Your task to perform on an android device: toggle pop-ups in chrome Image 0: 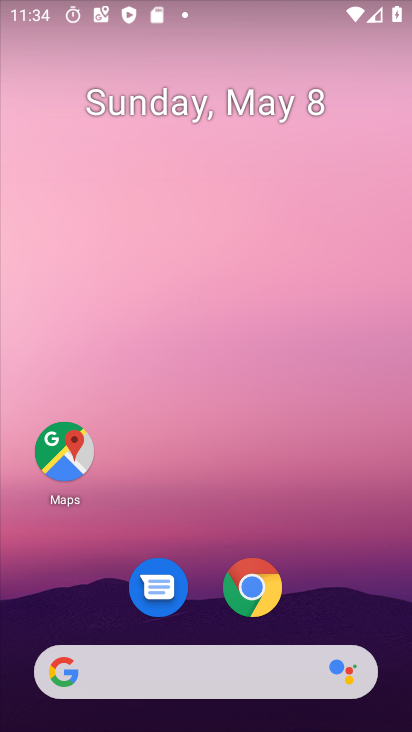
Step 0: drag from (364, 616) to (172, 23)
Your task to perform on an android device: toggle pop-ups in chrome Image 1: 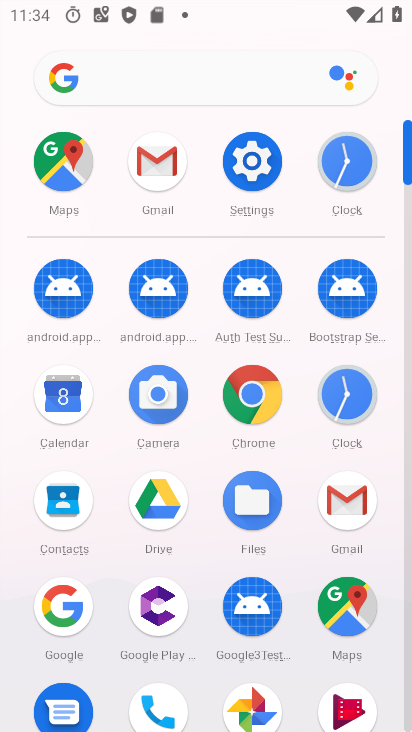
Step 1: click (255, 404)
Your task to perform on an android device: toggle pop-ups in chrome Image 2: 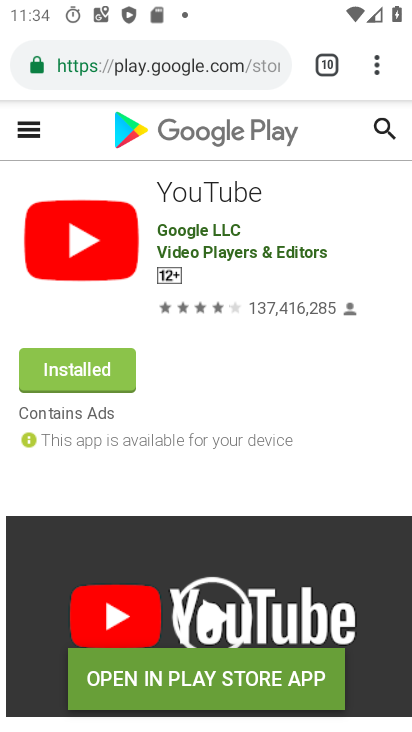
Step 2: drag from (368, 57) to (135, 631)
Your task to perform on an android device: toggle pop-ups in chrome Image 3: 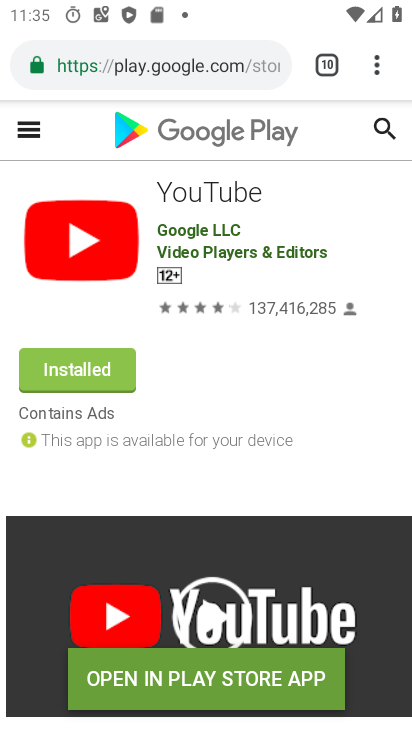
Step 3: click (135, 631)
Your task to perform on an android device: toggle pop-ups in chrome Image 4: 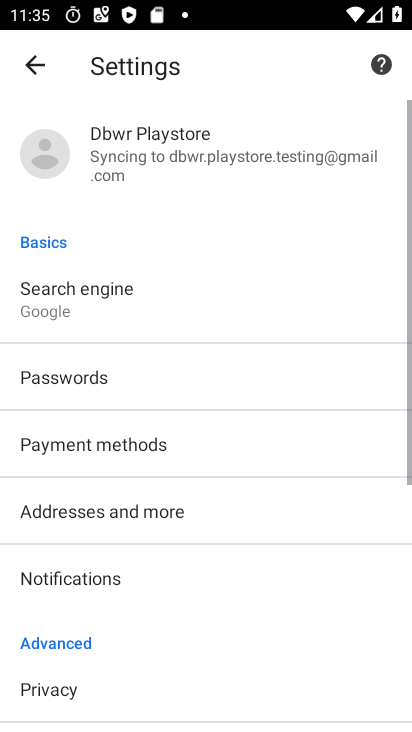
Step 4: click (135, 631)
Your task to perform on an android device: toggle pop-ups in chrome Image 5: 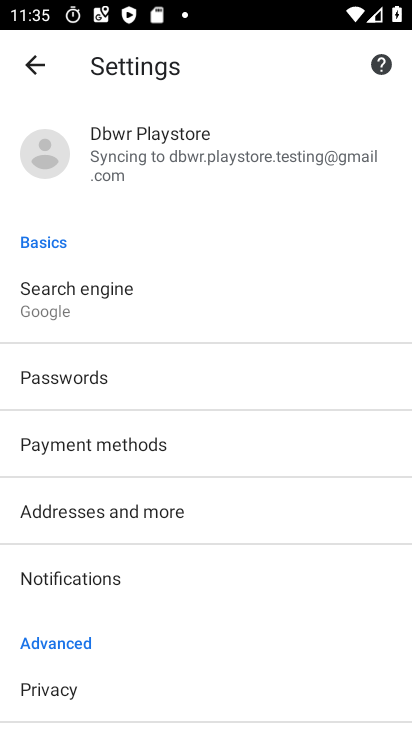
Step 5: drag from (137, 550) to (167, 108)
Your task to perform on an android device: toggle pop-ups in chrome Image 6: 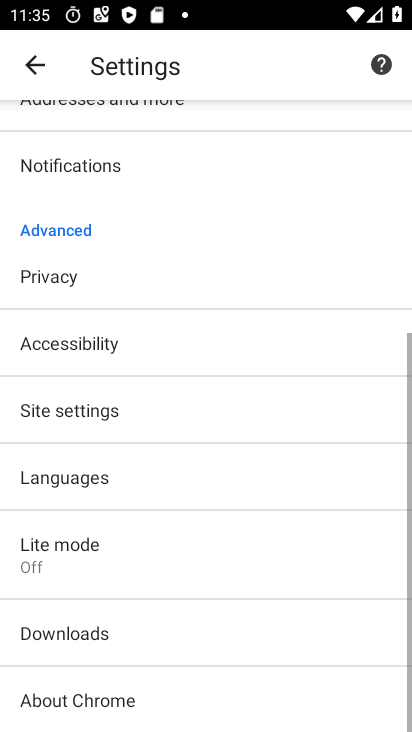
Step 6: drag from (120, 597) to (85, 210)
Your task to perform on an android device: toggle pop-ups in chrome Image 7: 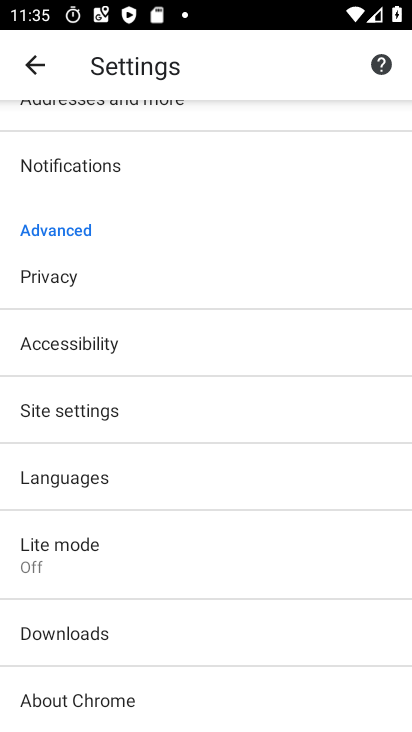
Step 7: click (55, 412)
Your task to perform on an android device: toggle pop-ups in chrome Image 8: 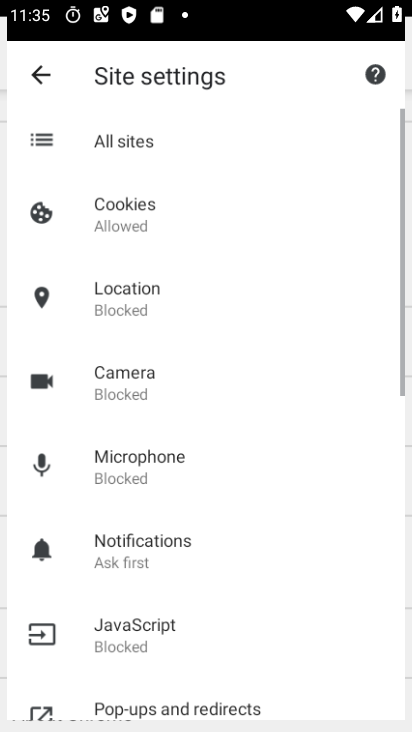
Step 8: click (56, 414)
Your task to perform on an android device: toggle pop-ups in chrome Image 9: 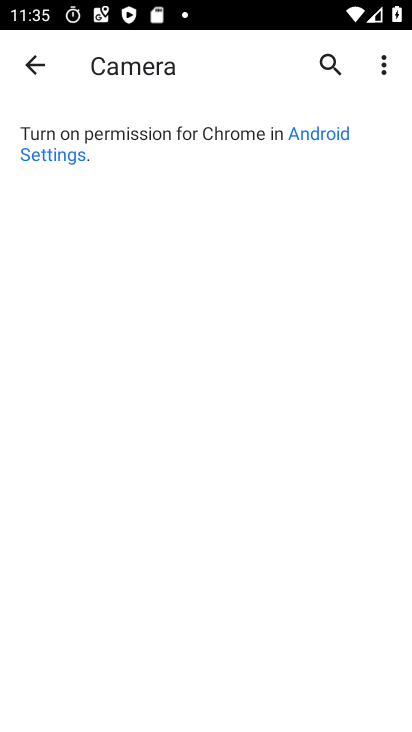
Step 9: click (49, 71)
Your task to perform on an android device: toggle pop-ups in chrome Image 10: 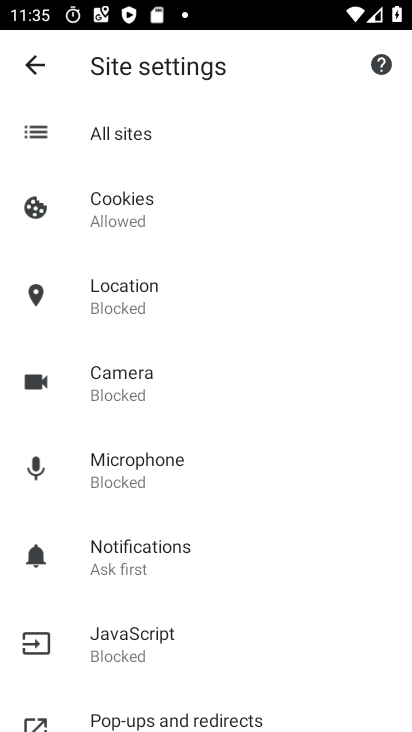
Step 10: drag from (196, 588) to (157, 195)
Your task to perform on an android device: toggle pop-ups in chrome Image 11: 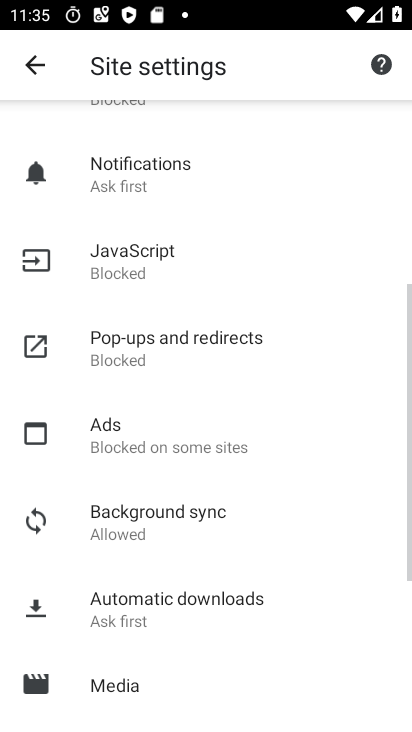
Step 11: drag from (173, 608) to (194, 124)
Your task to perform on an android device: toggle pop-ups in chrome Image 12: 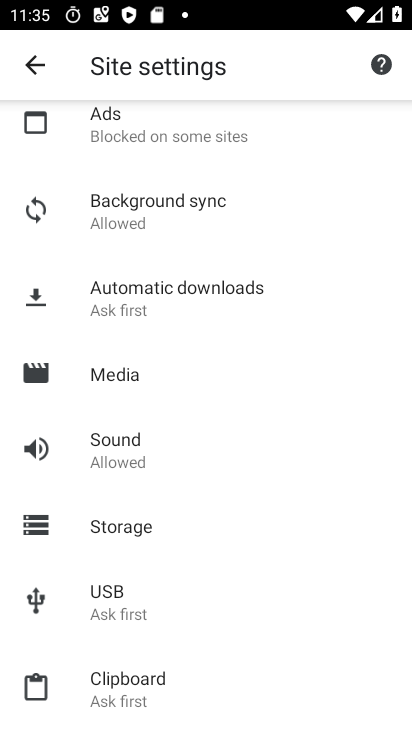
Step 12: drag from (105, 251) to (191, 618)
Your task to perform on an android device: toggle pop-ups in chrome Image 13: 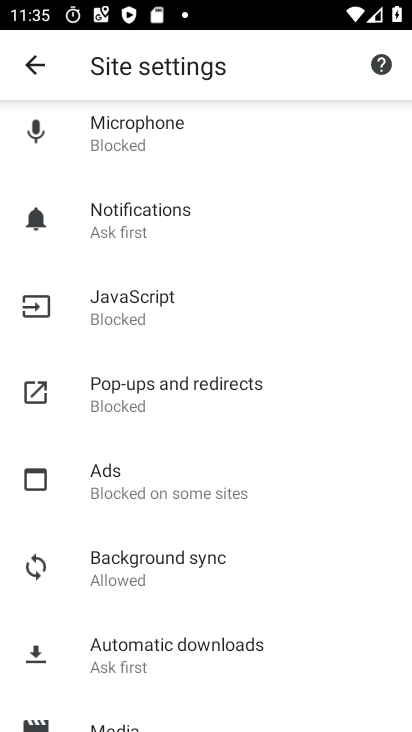
Step 13: click (129, 401)
Your task to perform on an android device: toggle pop-ups in chrome Image 14: 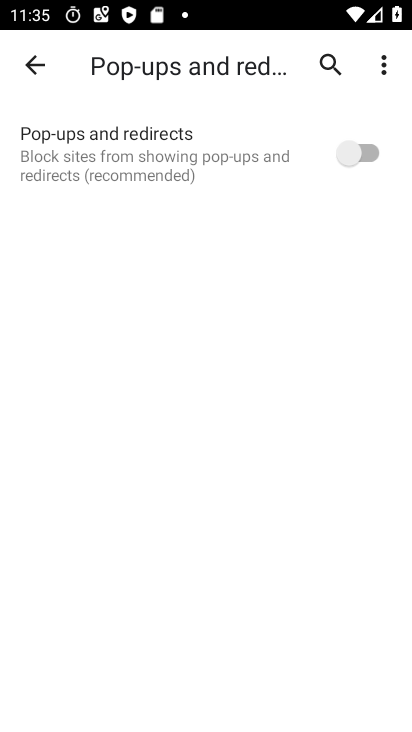
Step 14: click (130, 400)
Your task to perform on an android device: toggle pop-ups in chrome Image 15: 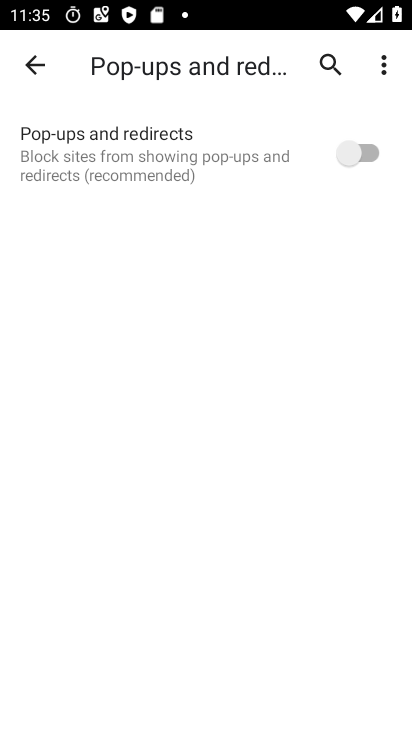
Step 15: click (355, 153)
Your task to perform on an android device: toggle pop-ups in chrome Image 16: 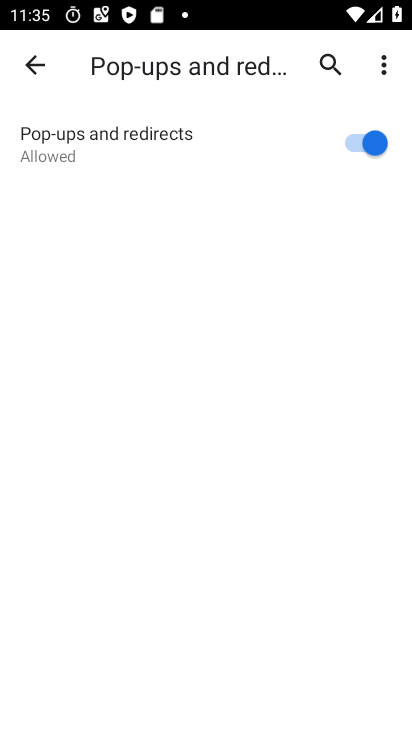
Step 16: task complete